Your task to perform on an android device: open app "Microsoft Excel" (install if not already installed) Image 0: 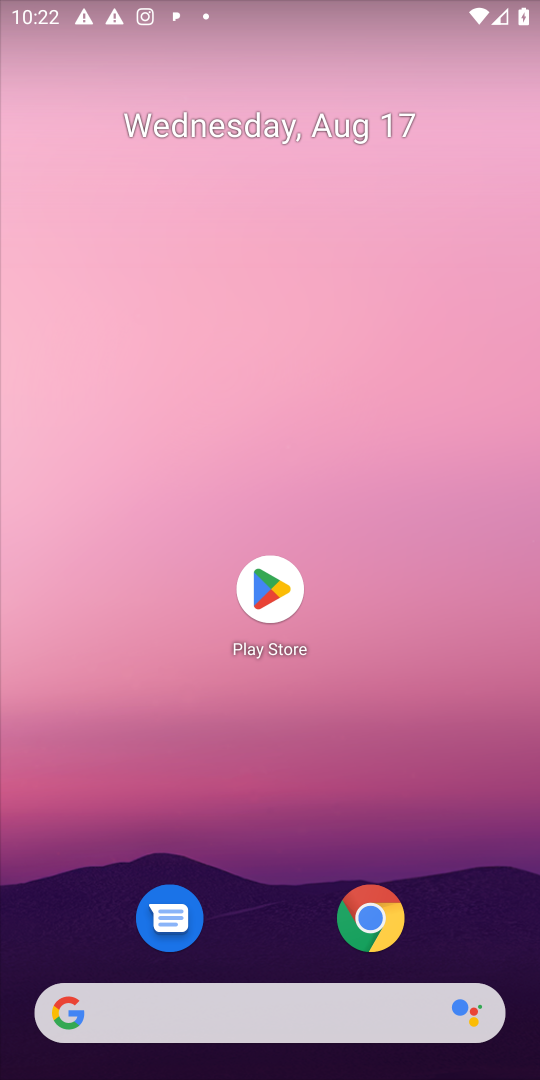
Step 0: press home button
Your task to perform on an android device: open app "Microsoft Excel" (install if not already installed) Image 1: 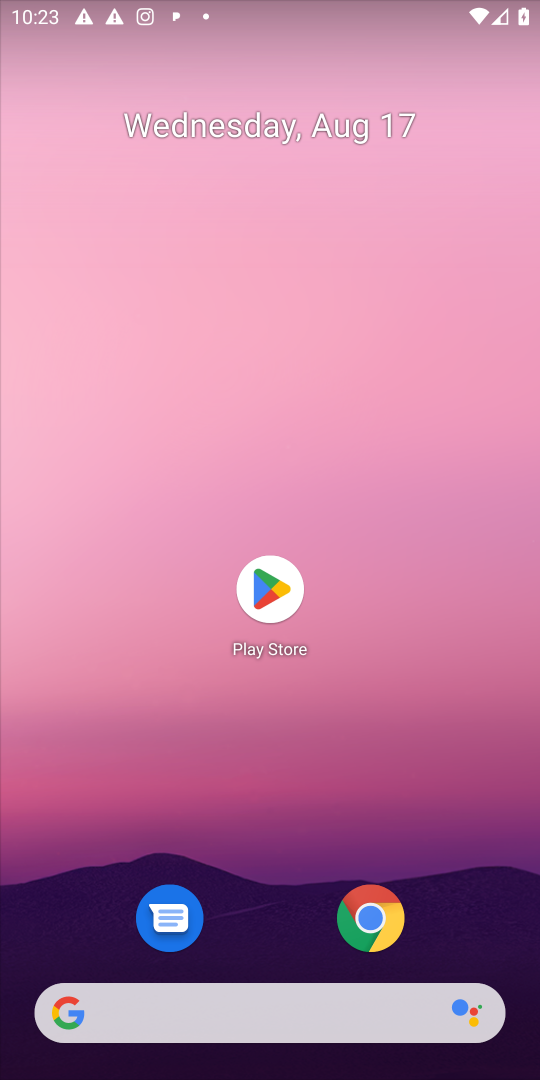
Step 1: click (253, 585)
Your task to perform on an android device: open app "Microsoft Excel" (install if not already installed) Image 2: 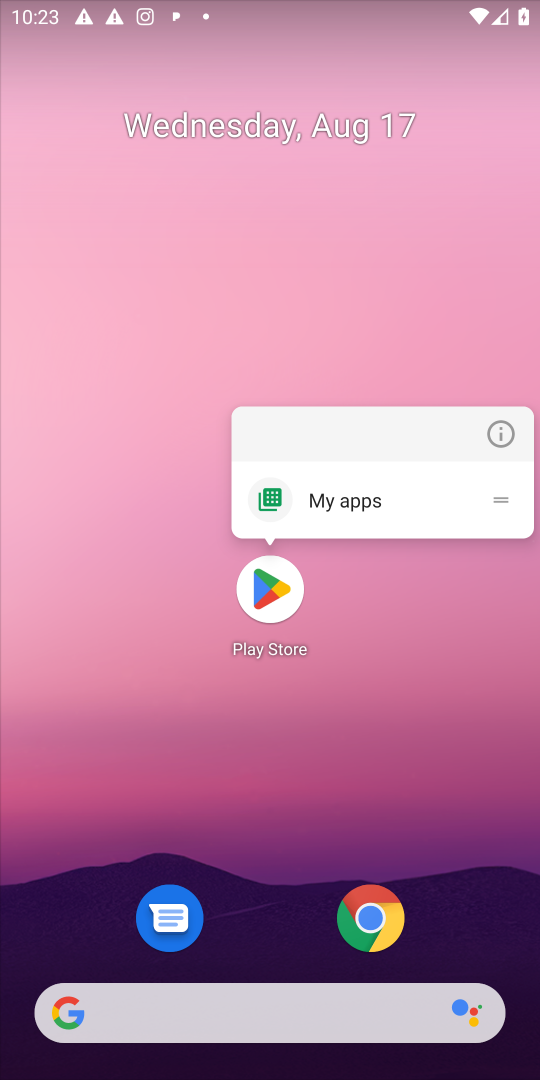
Step 2: click (253, 585)
Your task to perform on an android device: open app "Microsoft Excel" (install if not already installed) Image 3: 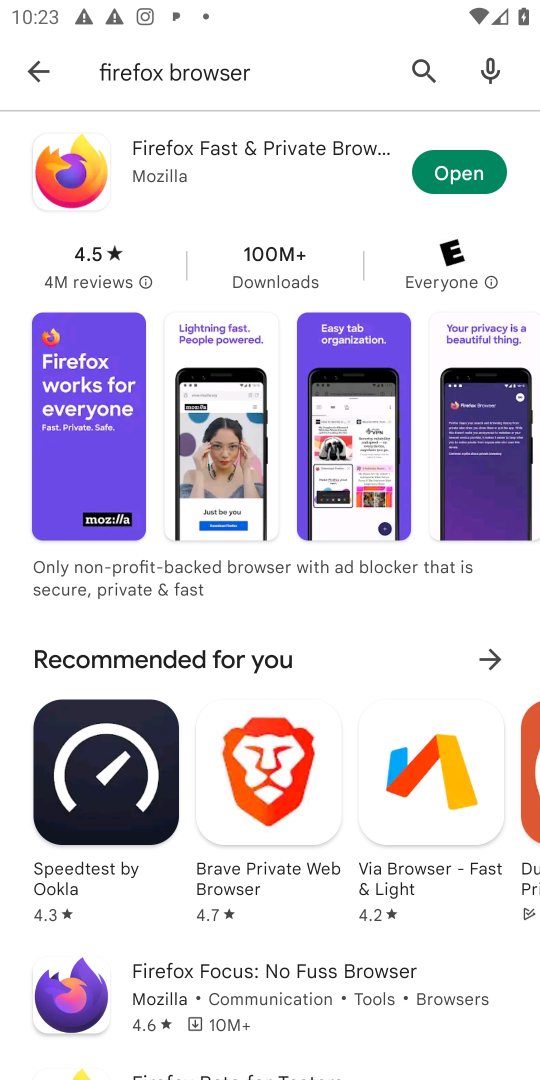
Step 3: click (419, 74)
Your task to perform on an android device: open app "Microsoft Excel" (install if not already installed) Image 4: 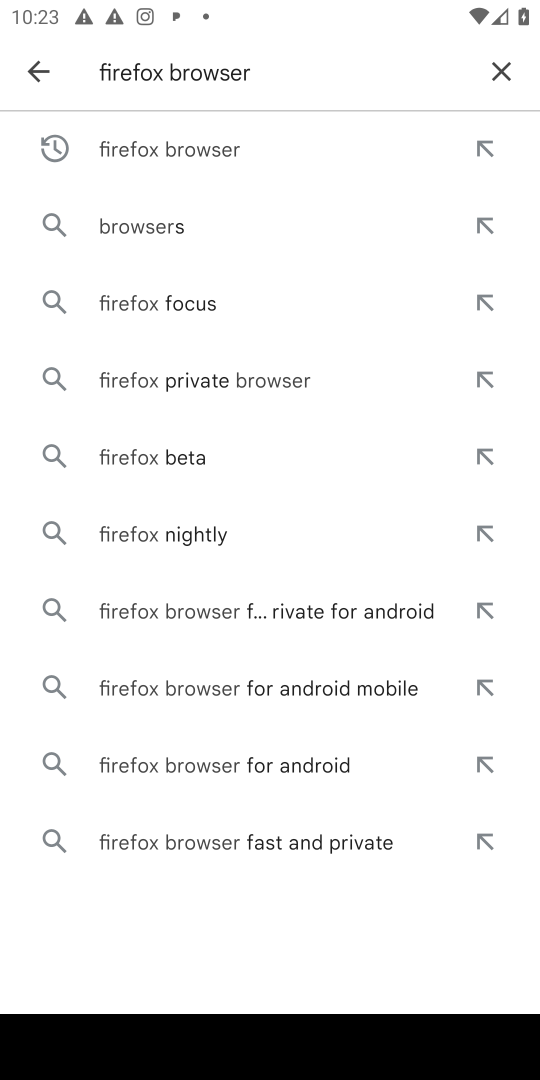
Step 4: click (492, 69)
Your task to perform on an android device: open app "Microsoft Excel" (install if not already installed) Image 5: 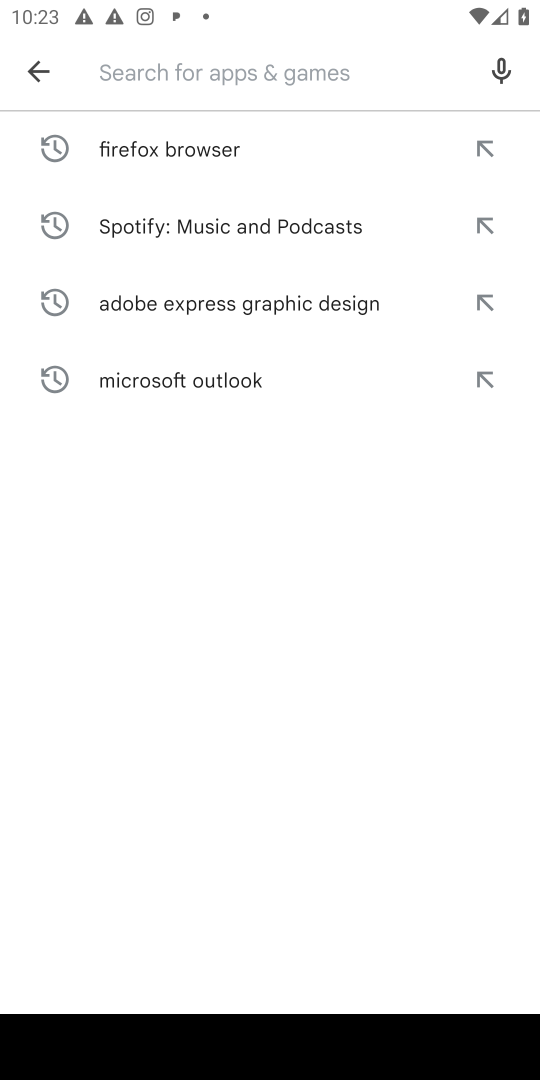
Step 5: type "Microsoft Excel"
Your task to perform on an android device: open app "Microsoft Excel" (install if not already installed) Image 6: 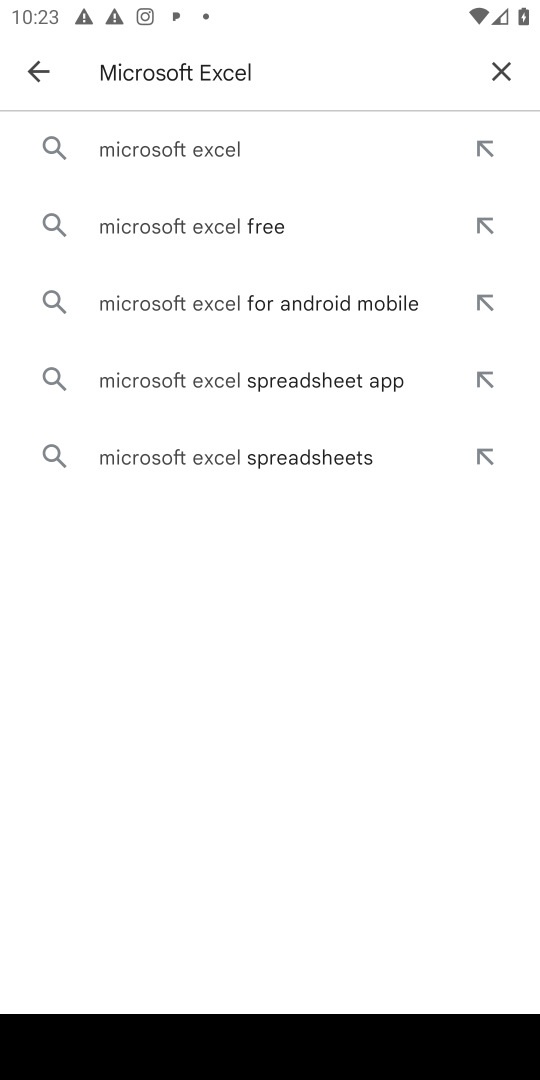
Step 6: click (213, 148)
Your task to perform on an android device: open app "Microsoft Excel" (install if not already installed) Image 7: 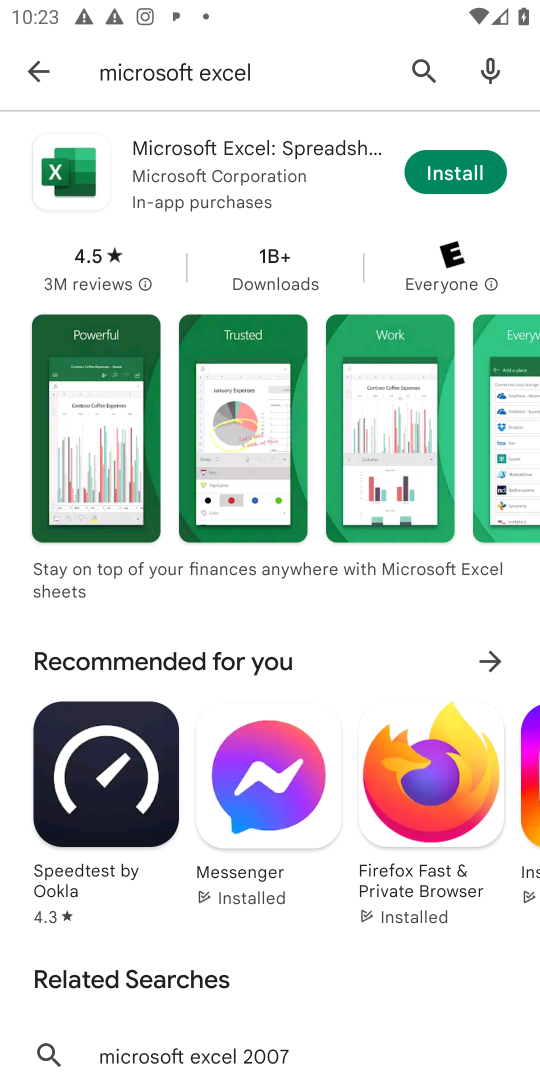
Step 7: click (468, 170)
Your task to perform on an android device: open app "Microsoft Excel" (install if not already installed) Image 8: 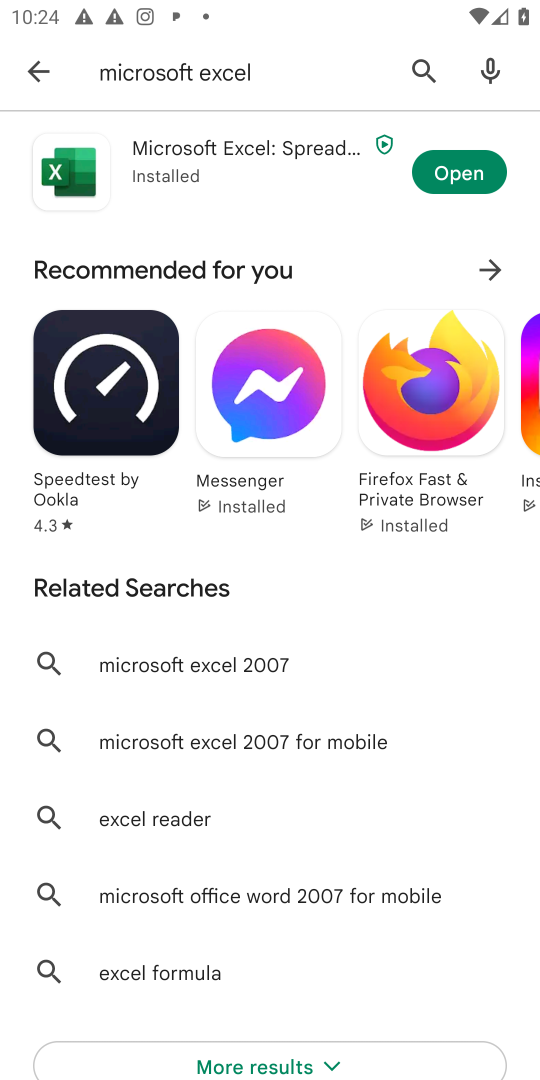
Step 8: click (467, 174)
Your task to perform on an android device: open app "Microsoft Excel" (install if not already installed) Image 9: 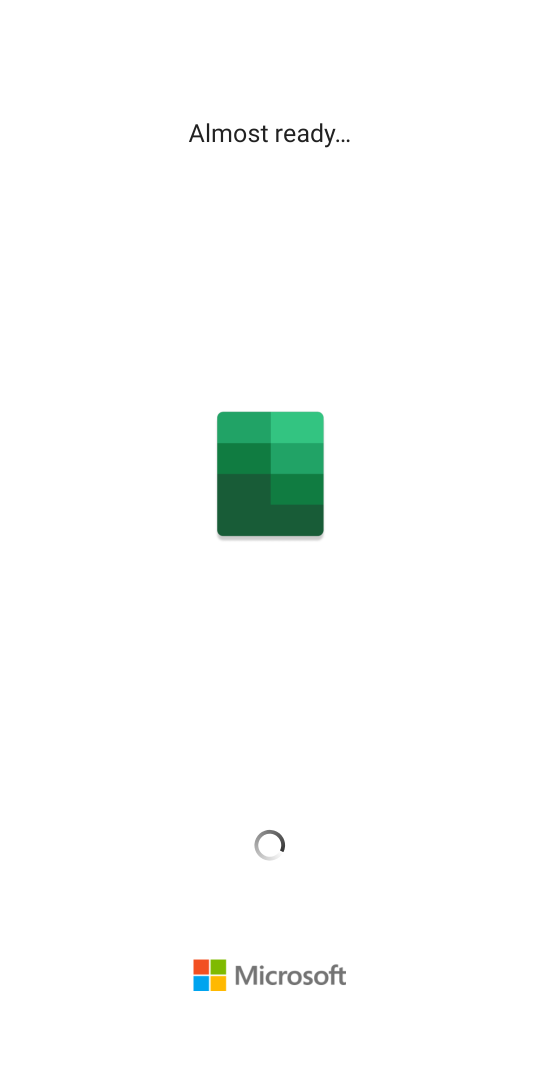
Step 9: task complete